Your task to perform on an android device: clear all cookies in the chrome app Image 0: 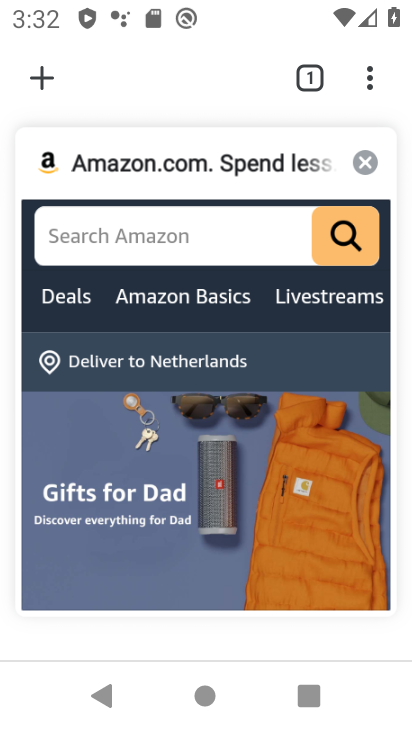
Step 0: press home button
Your task to perform on an android device: clear all cookies in the chrome app Image 1: 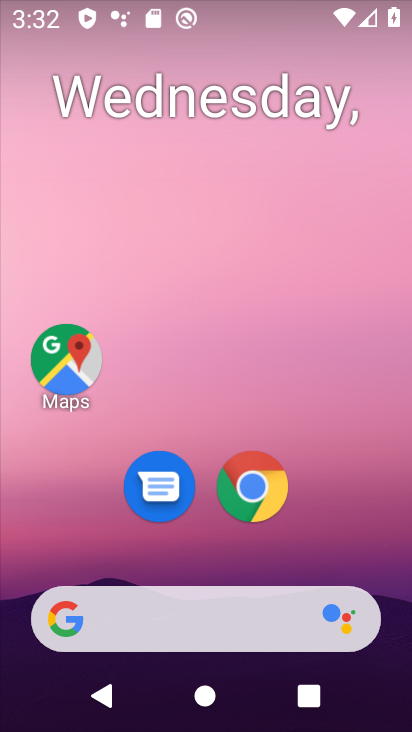
Step 1: click (261, 493)
Your task to perform on an android device: clear all cookies in the chrome app Image 2: 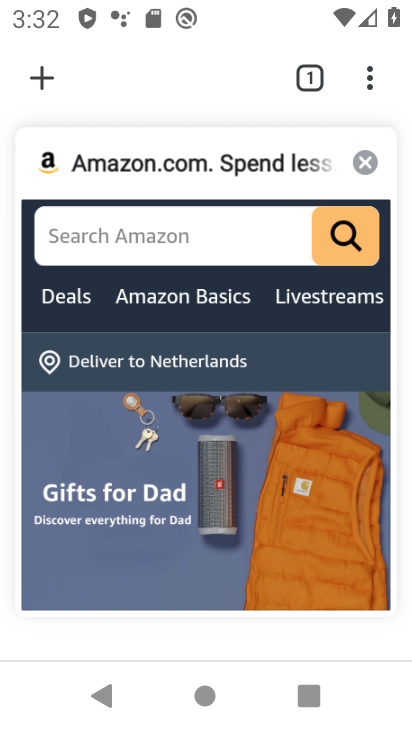
Step 2: click (368, 84)
Your task to perform on an android device: clear all cookies in the chrome app Image 3: 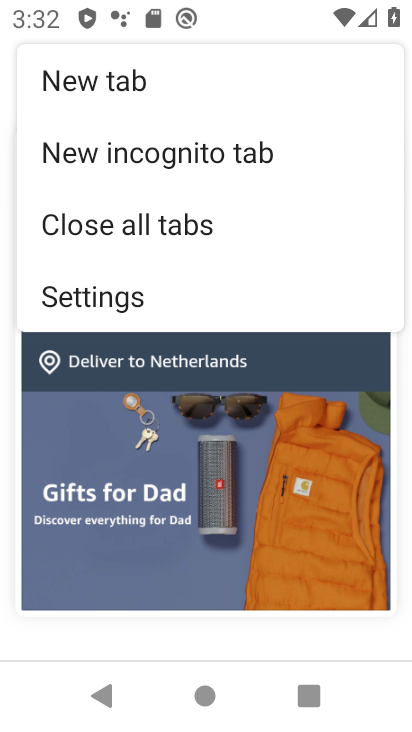
Step 3: click (115, 294)
Your task to perform on an android device: clear all cookies in the chrome app Image 4: 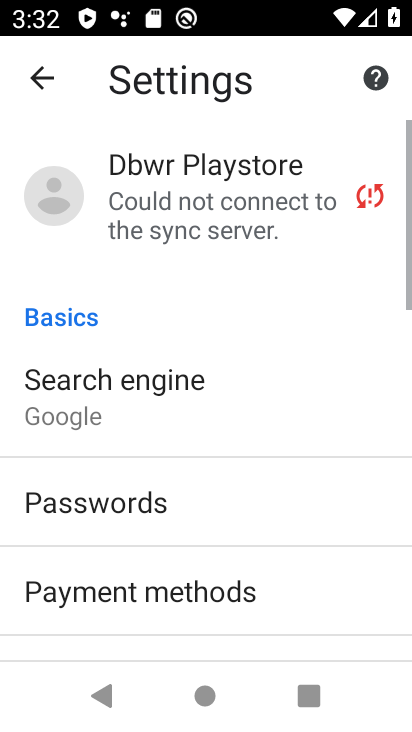
Step 4: drag from (199, 627) to (206, 250)
Your task to perform on an android device: clear all cookies in the chrome app Image 5: 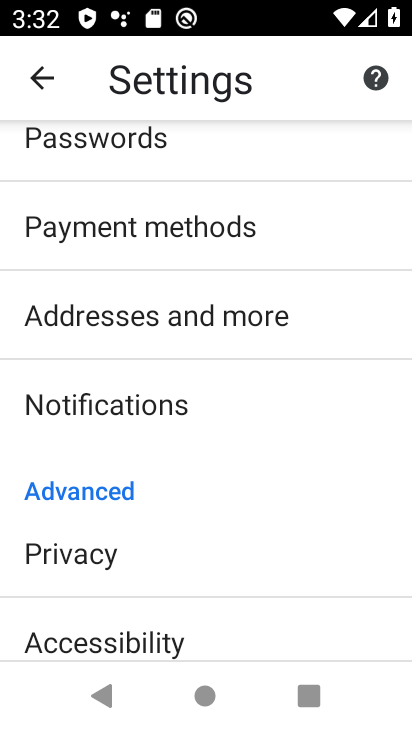
Step 5: drag from (179, 622) to (168, 323)
Your task to perform on an android device: clear all cookies in the chrome app Image 6: 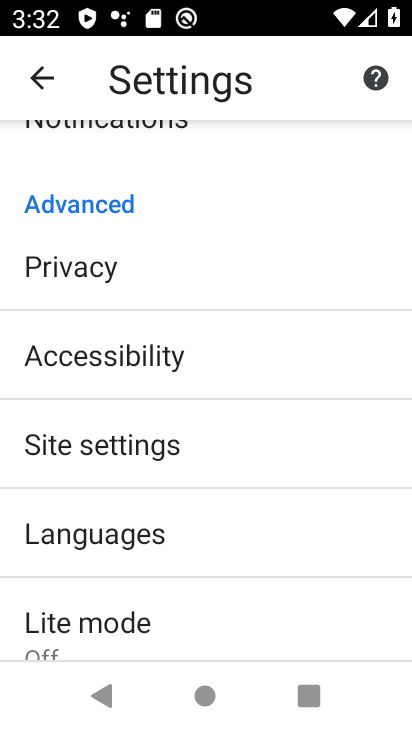
Step 6: click (102, 443)
Your task to perform on an android device: clear all cookies in the chrome app Image 7: 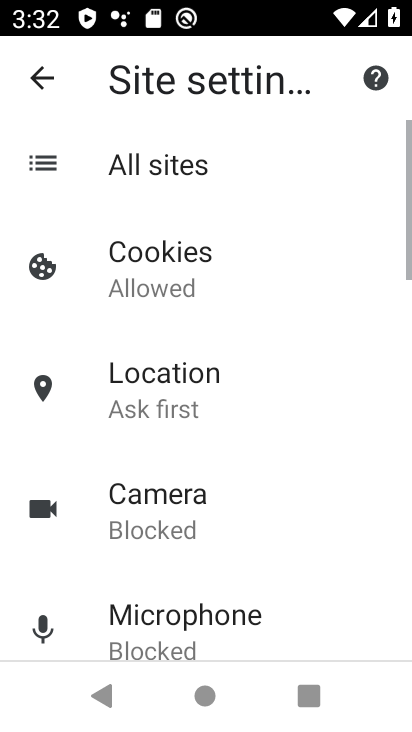
Step 7: drag from (188, 646) to (185, 306)
Your task to perform on an android device: clear all cookies in the chrome app Image 8: 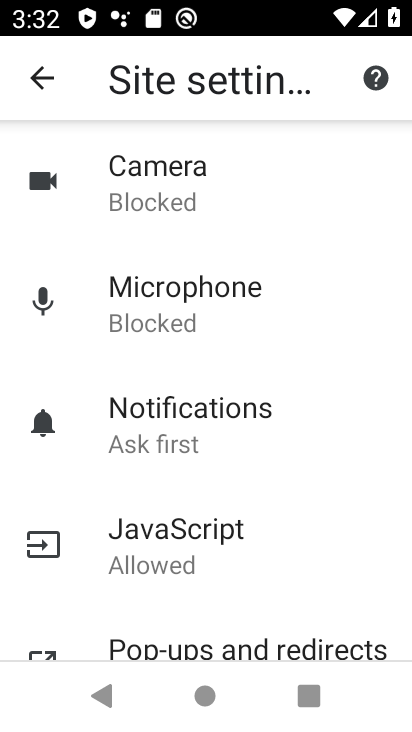
Step 8: drag from (234, 656) to (241, 382)
Your task to perform on an android device: clear all cookies in the chrome app Image 9: 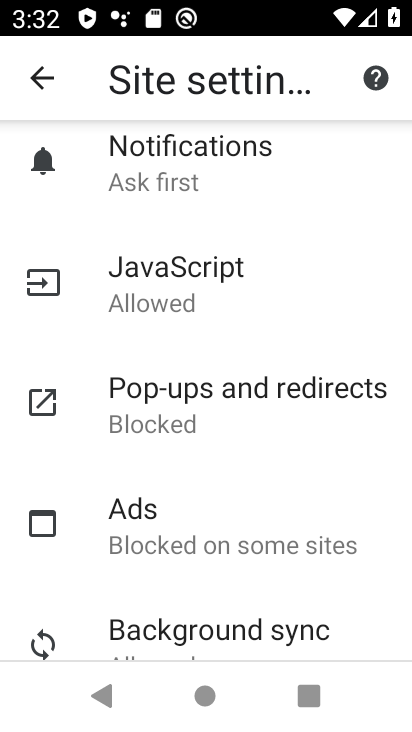
Step 9: drag from (225, 253) to (219, 552)
Your task to perform on an android device: clear all cookies in the chrome app Image 10: 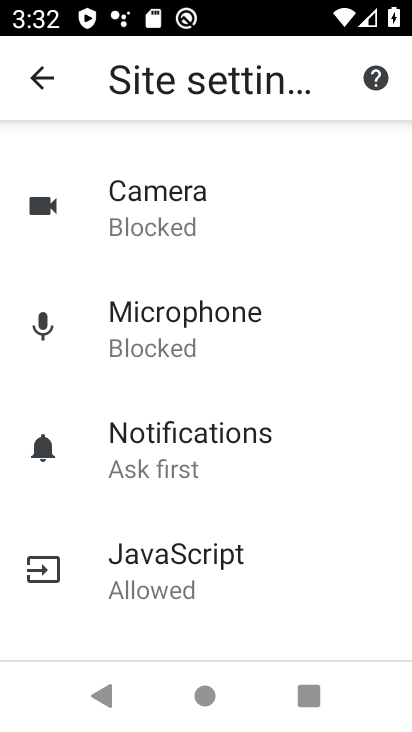
Step 10: click (34, 80)
Your task to perform on an android device: clear all cookies in the chrome app Image 11: 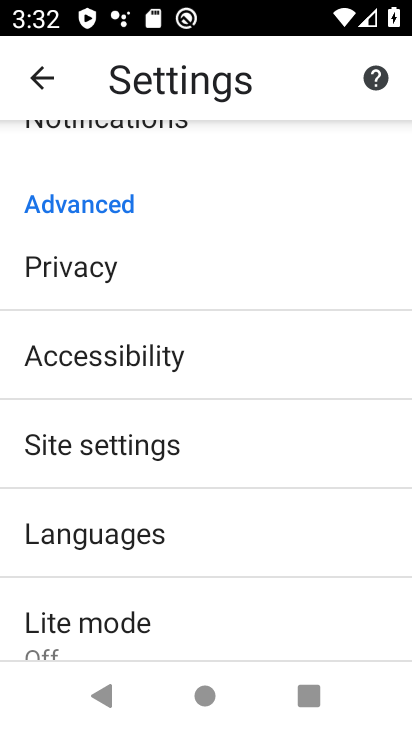
Step 11: click (72, 273)
Your task to perform on an android device: clear all cookies in the chrome app Image 12: 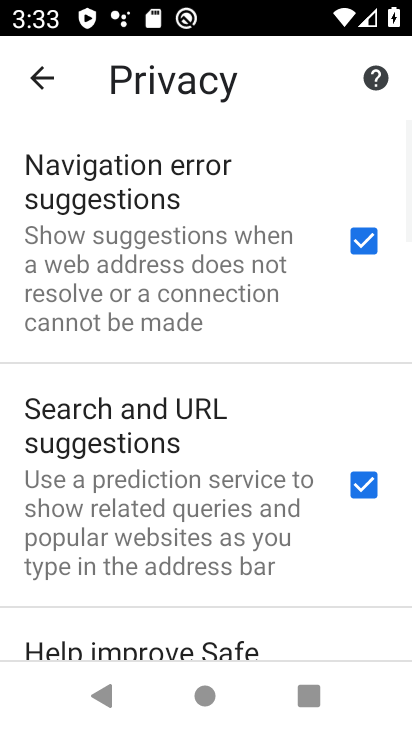
Step 12: drag from (174, 637) to (174, 179)
Your task to perform on an android device: clear all cookies in the chrome app Image 13: 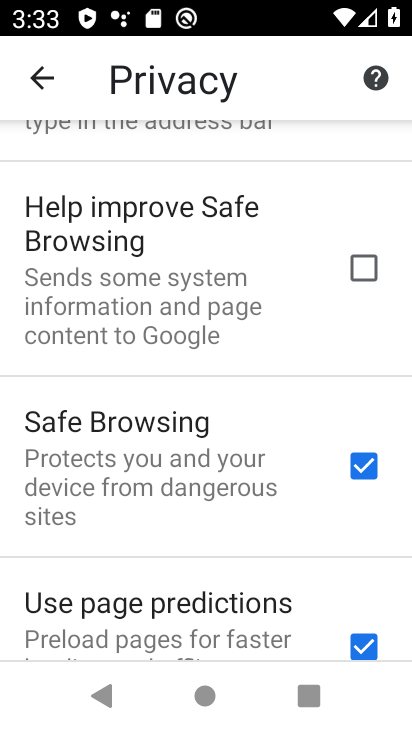
Step 13: drag from (213, 610) to (212, 246)
Your task to perform on an android device: clear all cookies in the chrome app Image 14: 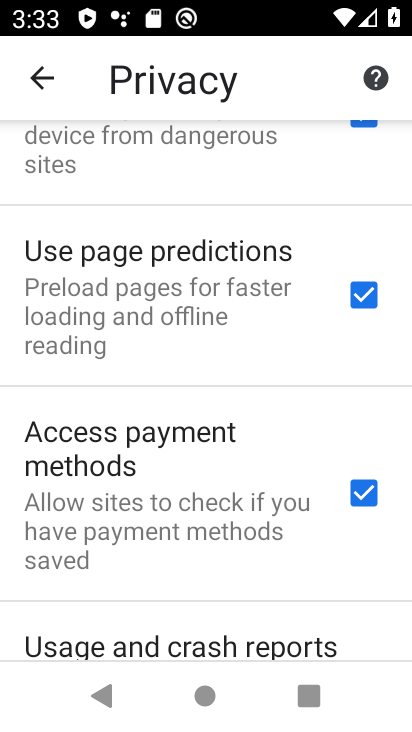
Step 14: drag from (217, 659) to (217, 361)
Your task to perform on an android device: clear all cookies in the chrome app Image 15: 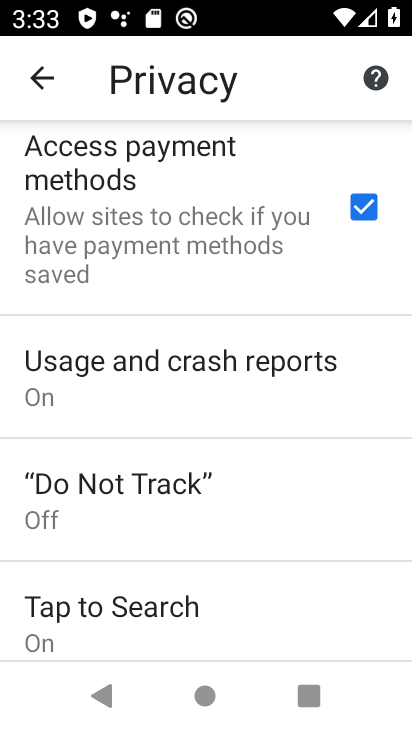
Step 15: drag from (197, 567) to (225, 301)
Your task to perform on an android device: clear all cookies in the chrome app Image 16: 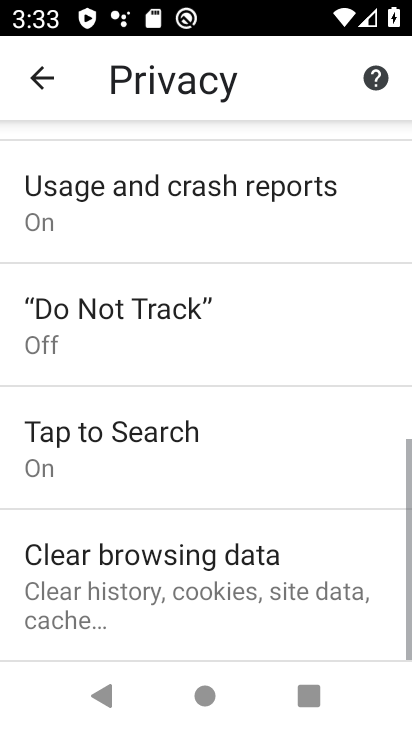
Step 16: click (207, 593)
Your task to perform on an android device: clear all cookies in the chrome app Image 17: 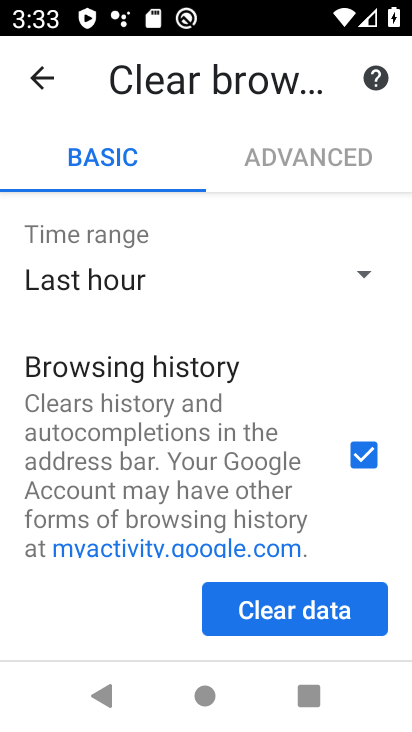
Step 17: click (275, 615)
Your task to perform on an android device: clear all cookies in the chrome app Image 18: 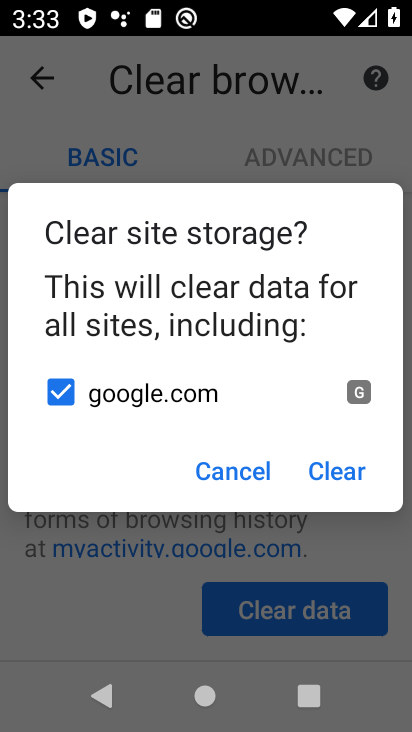
Step 18: click (352, 475)
Your task to perform on an android device: clear all cookies in the chrome app Image 19: 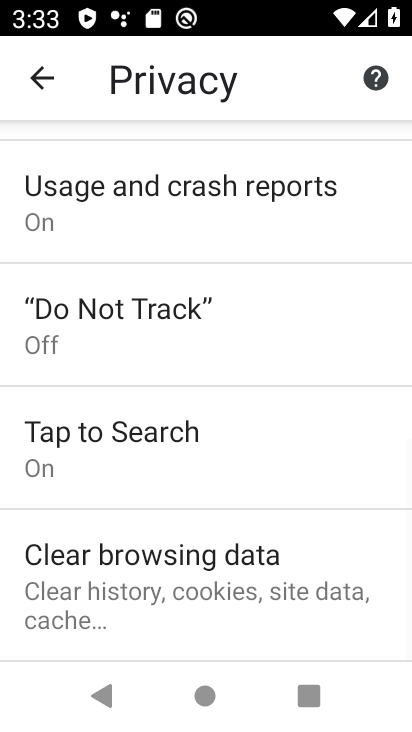
Step 19: task complete